Your task to perform on an android device: What's the weather today? Image 0: 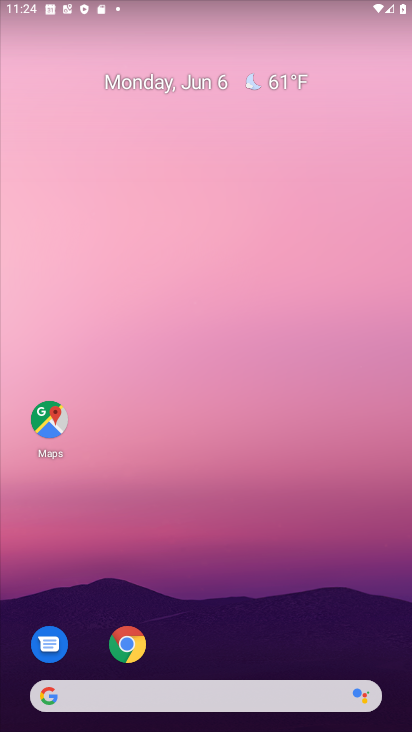
Step 0: drag from (219, 662) to (228, 102)
Your task to perform on an android device: What's the weather today? Image 1: 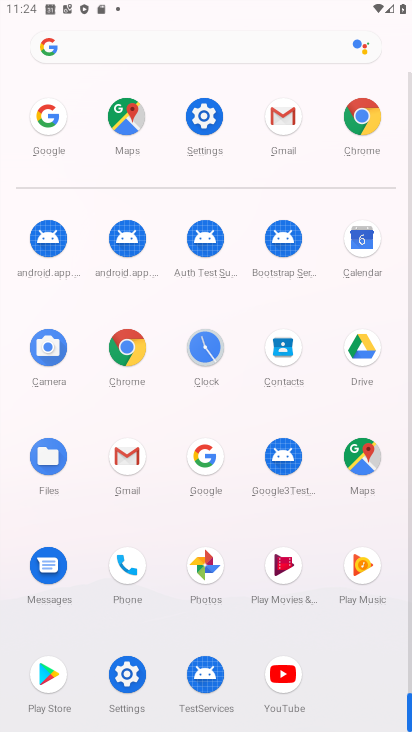
Step 1: drag from (209, 554) to (229, 302)
Your task to perform on an android device: What's the weather today? Image 2: 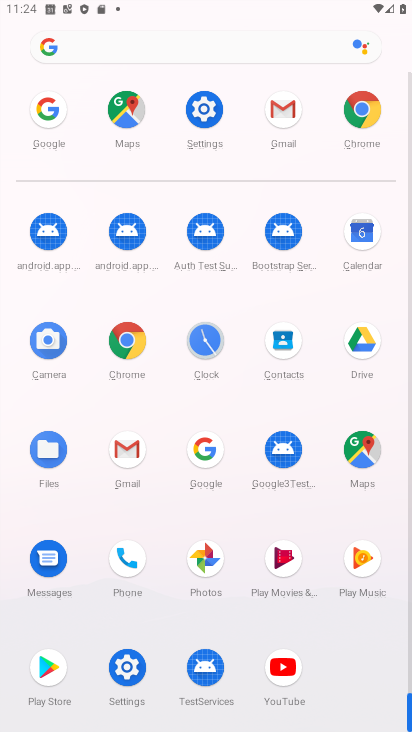
Step 2: click (204, 469)
Your task to perform on an android device: What's the weather today? Image 3: 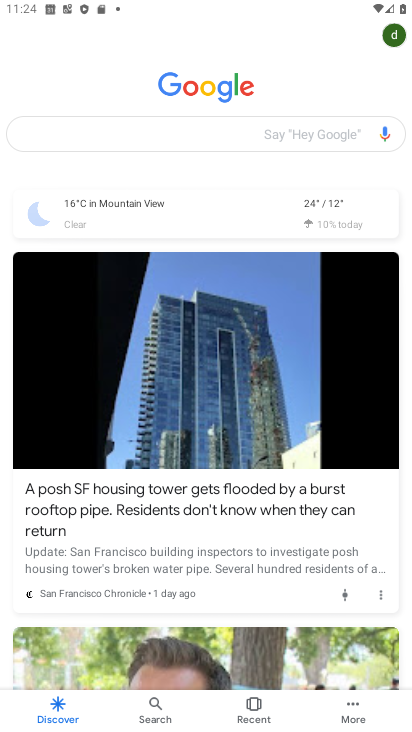
Step 3: click (163, 135)
Your task to perform on an android device: What's the weather today? Image 4: 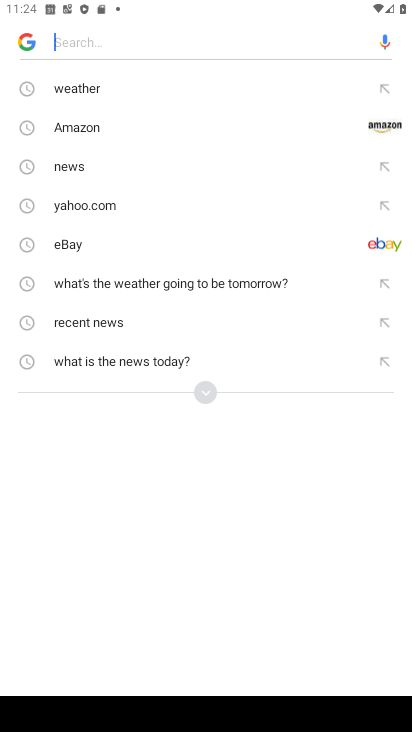
Step 4: click (89, 87)
Your task to perform on an android device: What's the weather today? Image 5: 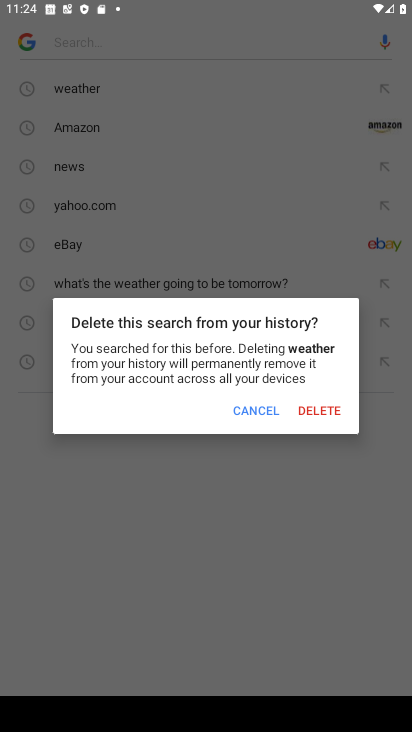
Step 5: click (215, 151)
Your task to perform on an android device: What's the weather today? Image 6: 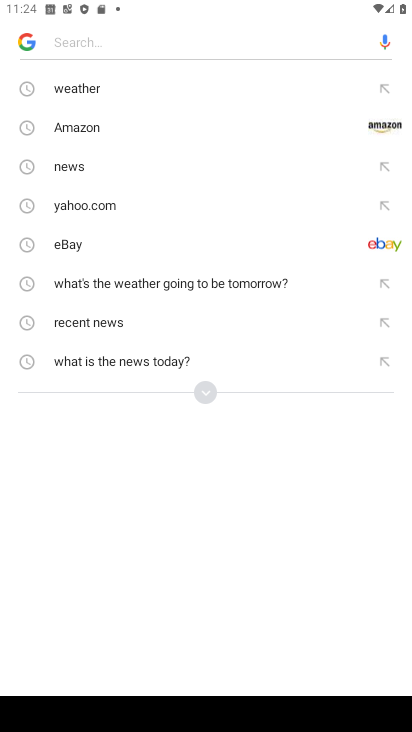
Step 6: click (391, 88)
Your task to perform on an android device: What's the weather today? Image 7: 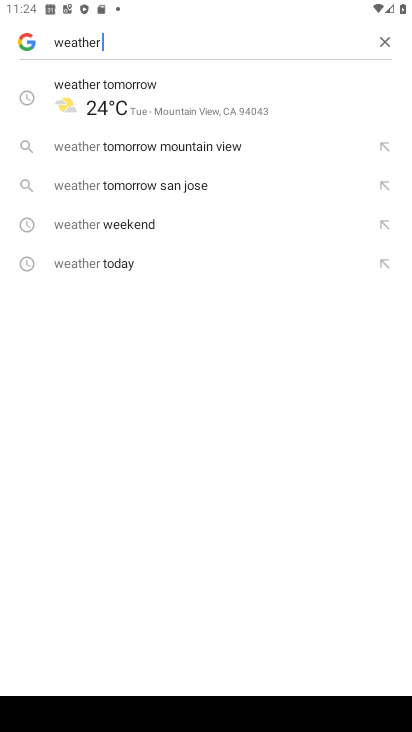
Step 7: click (109, 273)
Your task to perform on an android device: What's the weather today? Image 8: 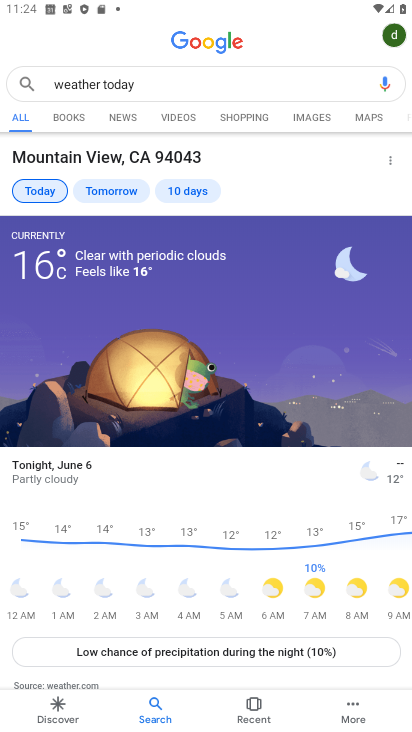
Step 8: task complete